Your task to perform on an android device: Is it going to rain today? Image 0: 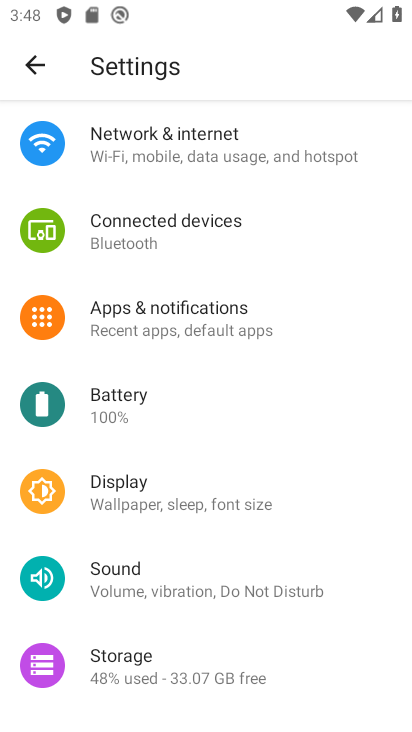
Step 0: press home button
Your task to perform on an android device: Is it going to rain today? Image 1: 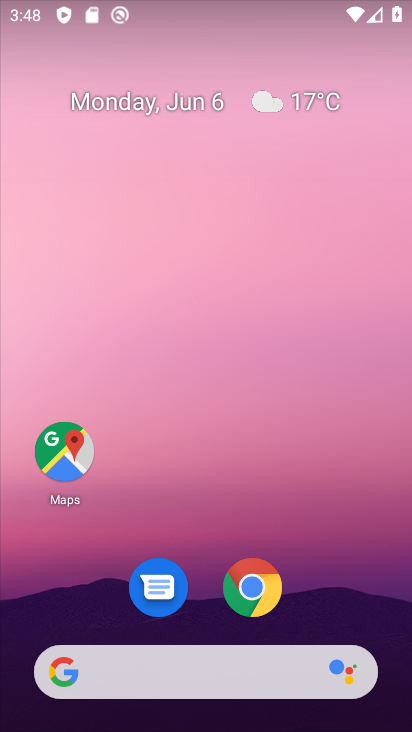
Step 1: click (298, 103)
Your task to perform on an android device: Is it going to rain today? Image 2: 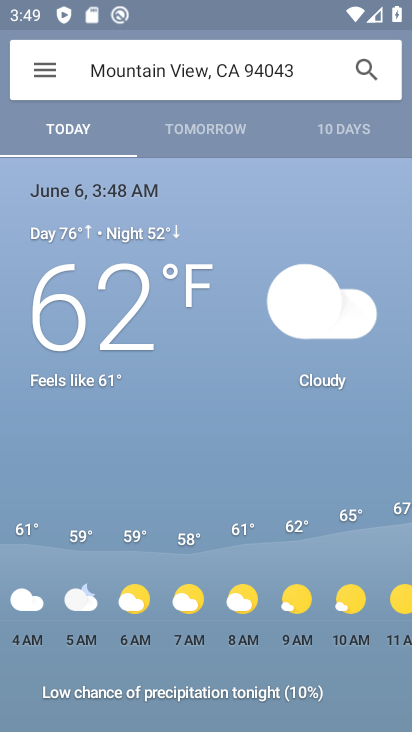
Step 2: task complete